Your task to perform on an android device: Find coffee shops on Maps Image 0: 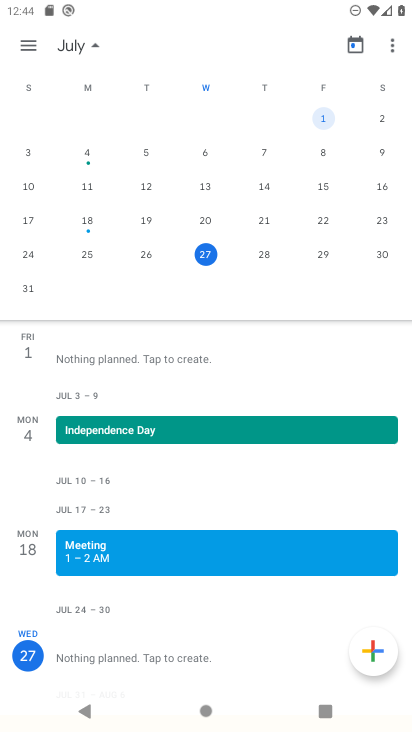
Step 0: press home button
Your task to perform on an android device: Find coffee shops on Maps Image 1: 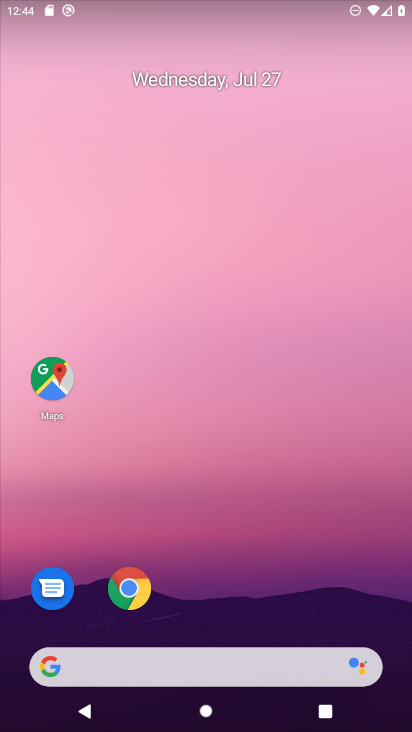
Step 1: click (40, 374)
Your task to perform on an android device: Find coffee shops on Maps Image 2: 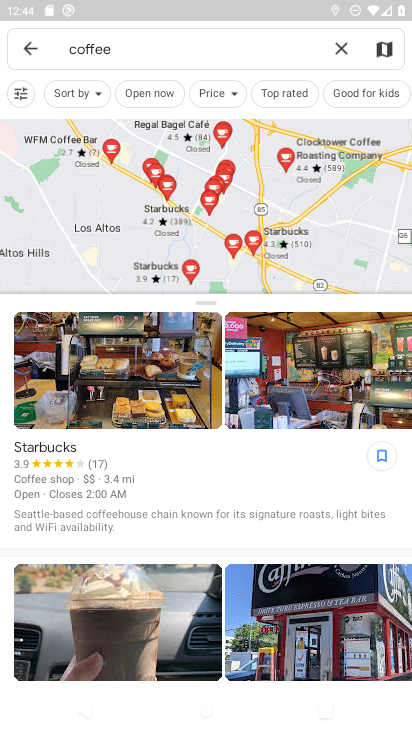
Step 2: click (341, 45)
Your task to perform on an android device: Find coffee shops on Maps Image 3: 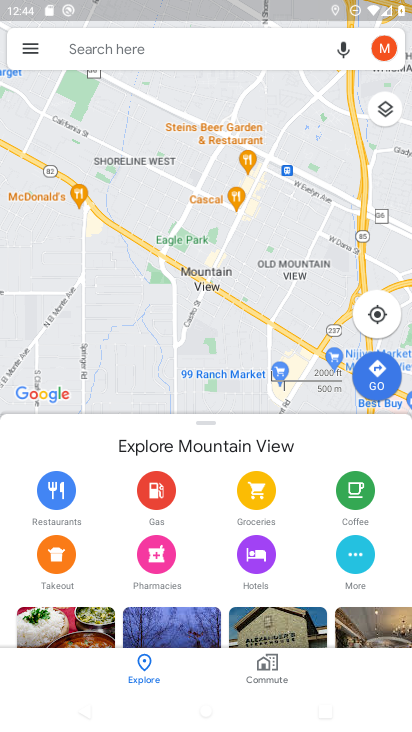
Step 3: click (88, 43)
Your task to perform on an android device: Find coffee shops on Maps Image 4: 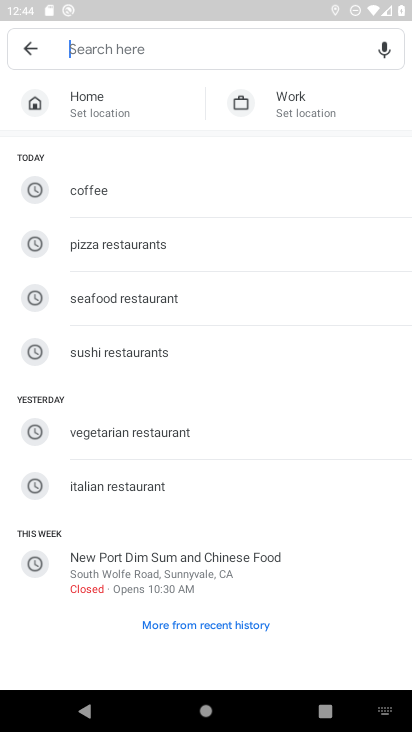
Step 4: type "coffee shops"
Your task to perform on an android device: Find coffee shops on Maps Image 5: 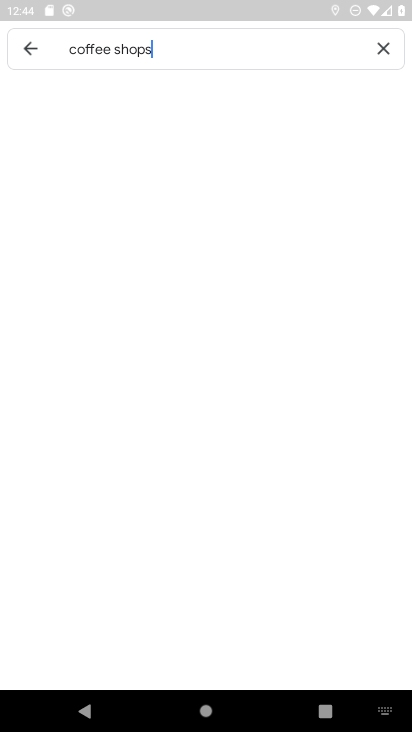
Step 5: type ""
Your task to perform on an android device: Find coffee shops on Maps Image 6: 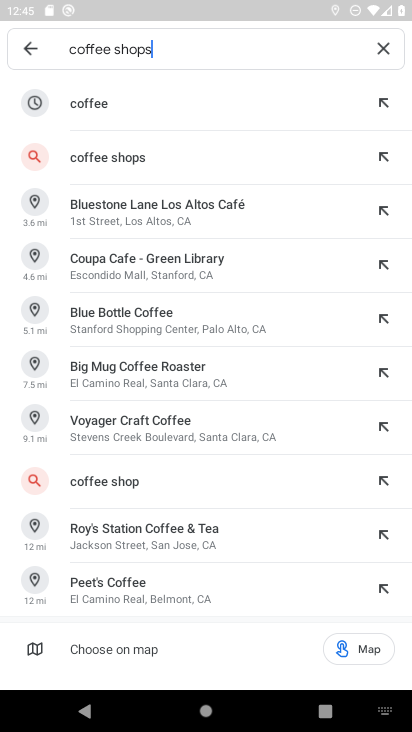
Step 6: click (102, 159)
Your task to perform on an android device: Find coffee shops on Maps Image 7: 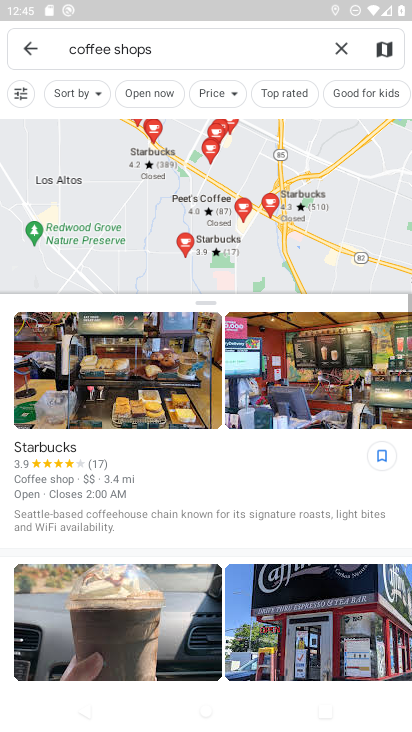
Step 7: task complete